Your task to perform on an android device: toggle show notifications on the lock screen Image 0: 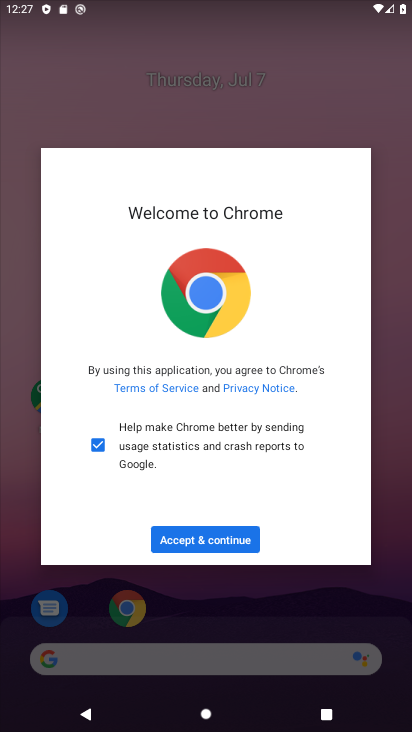
Step 0: press home button
Your task to perform on an android device: toggle show notifications on the lock screen Image 1: 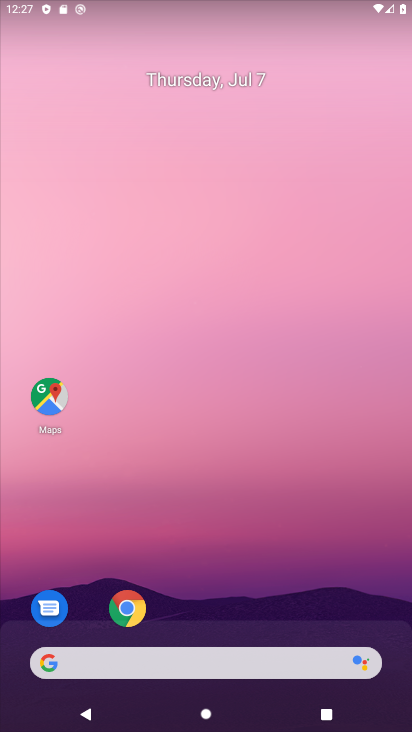
Step 1: drag from (198, 527) to (290, 99)
Your task to perform on an android device: toggle show notifications on the lock screen Image 2: 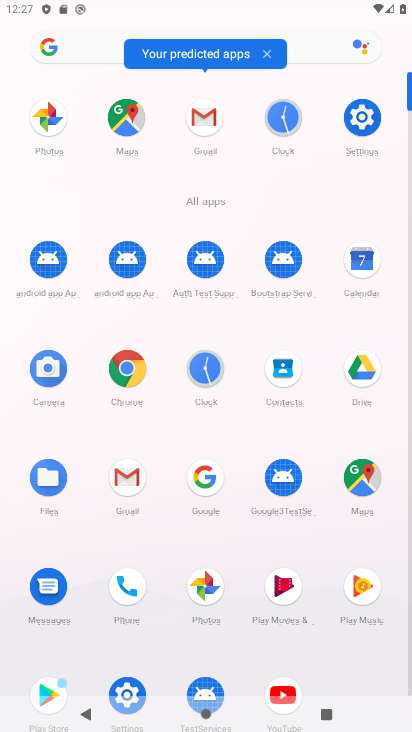
Step 2: click (128, 678)
Your task to perform on an android device: toggle show notifications on the lock screen Image 3: 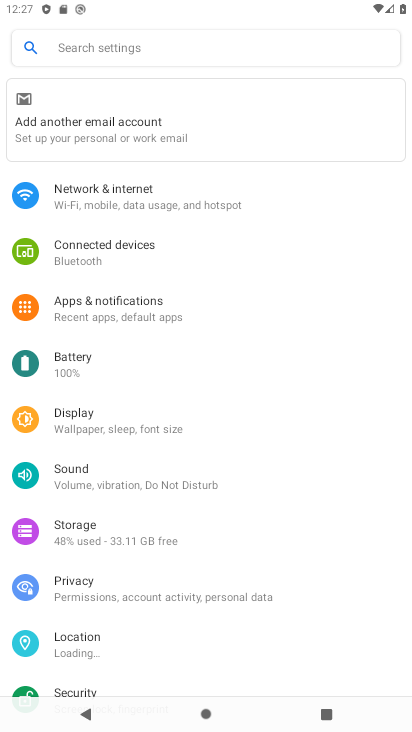
Step 3: click (147, 314)
Your task to perform on an android device: toggle show notifications on the lock screen Image 4: 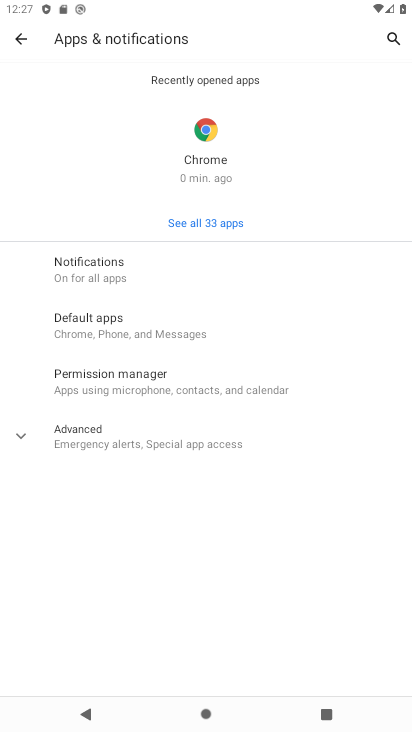
Step 4: click (154, 276)
Your task to perform on an android device: toggle show notifications on the lock screen Image 5: 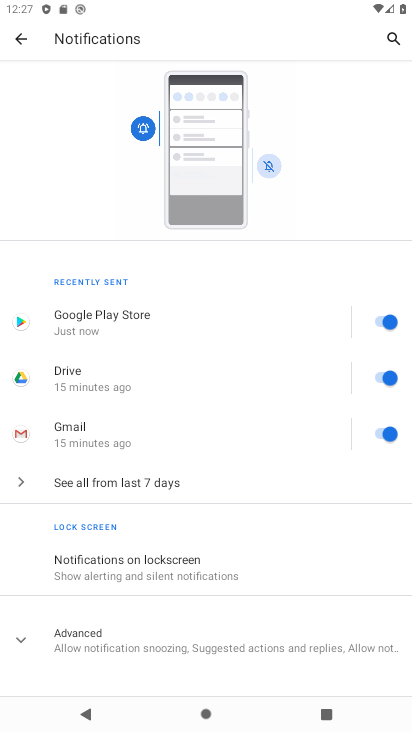
Step 5: click (165, 565)
Your task to perform on an android device: toggle show notifications on the lock screen Image 6: 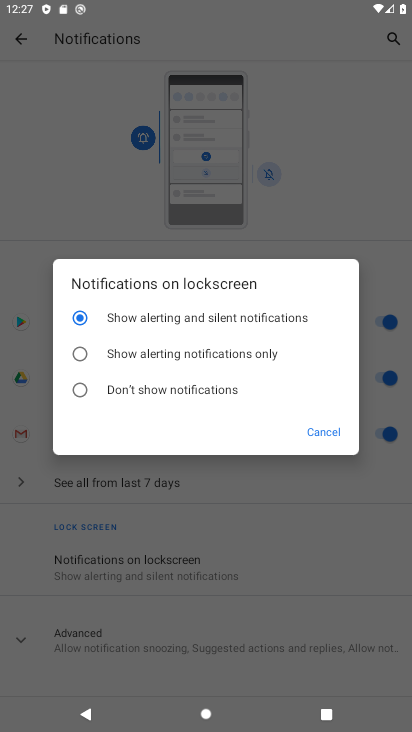
Step 6: click (145, 391)
Your task to perform on an android device: toggle show notifications on the lock screen Image 7: 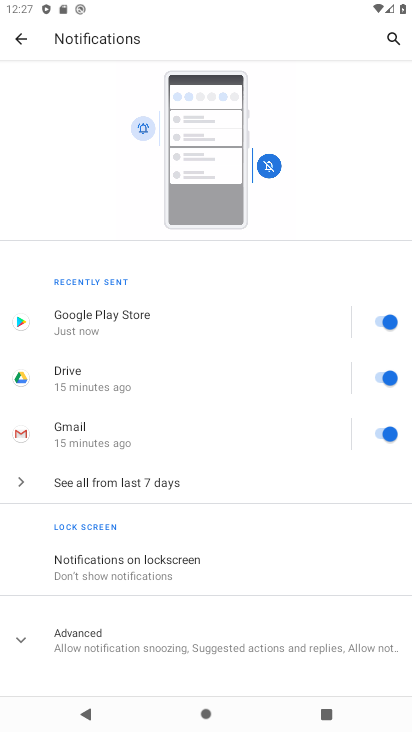
Step 7: task complete